Your task to perform on an android device: Open settings on Google Maps Image 0: 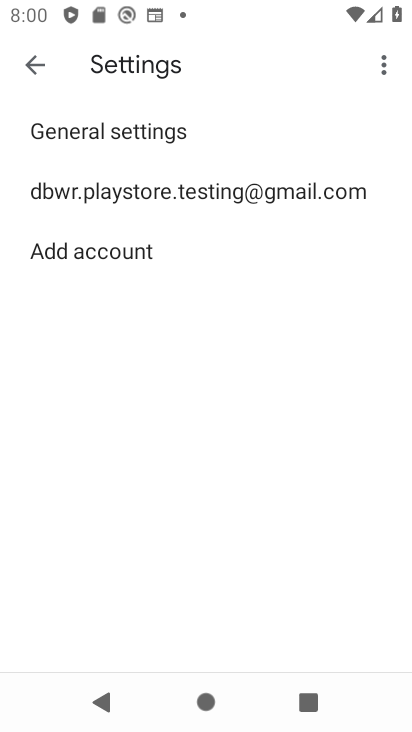
Step 0: press home button
Your task to perform on an android device: Open settings on Google Maps Image 1: 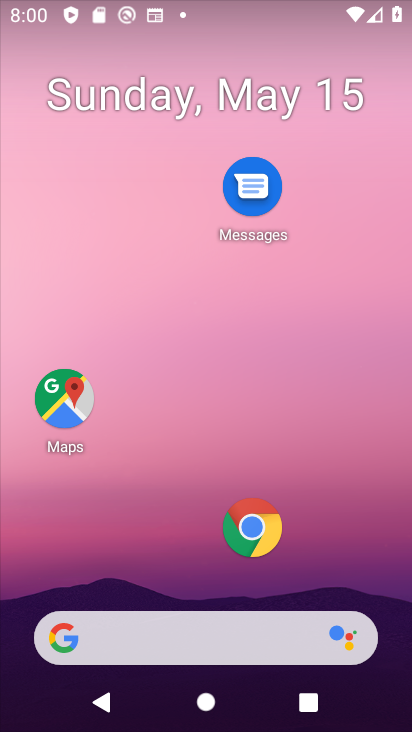
Step 1: click (74, 412)
Your task to perform on an android device: Open settings on Google Maps Image 2: 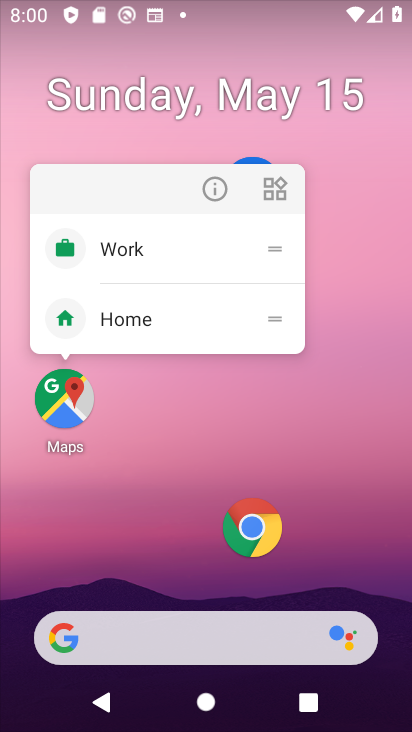
Step 2: click (66, 409)
Your task to perform on an android device: Open settings on Google Maps Image 3: 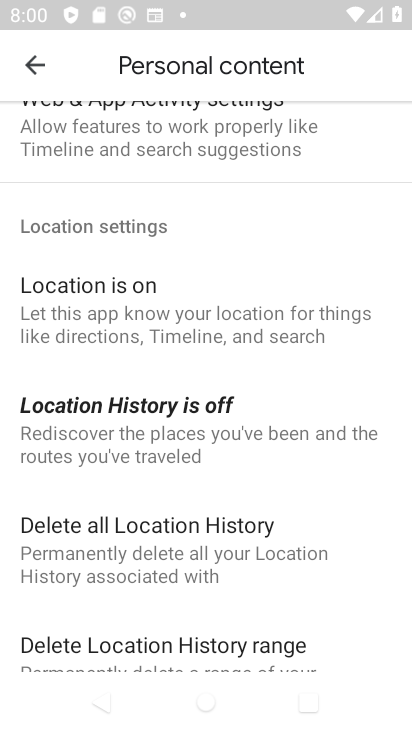
Step 3: click (27, 66)
Your task to perform on an android device: Open settings on Google Maps Image 4: 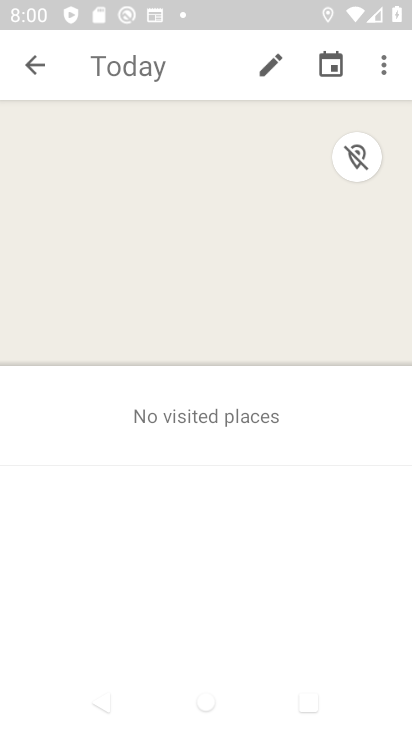
Step 4: click (29, 64)
Your task to perform on an android device: Open settings on Google Maps Image 5: 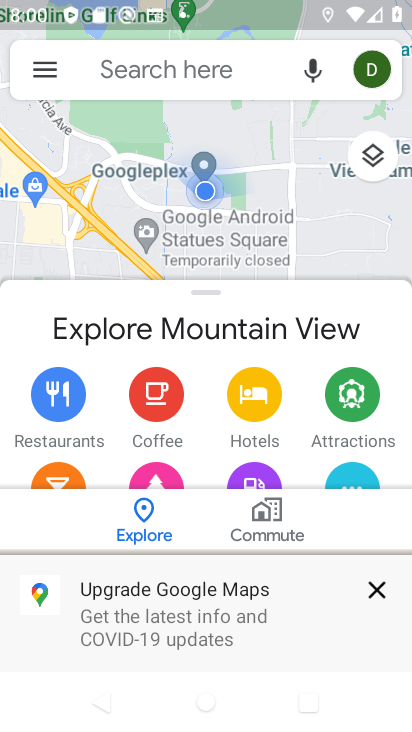
Step 5: click (43, 66)
Your task to perform on an android device: Open settings on Google Maps Image 6: 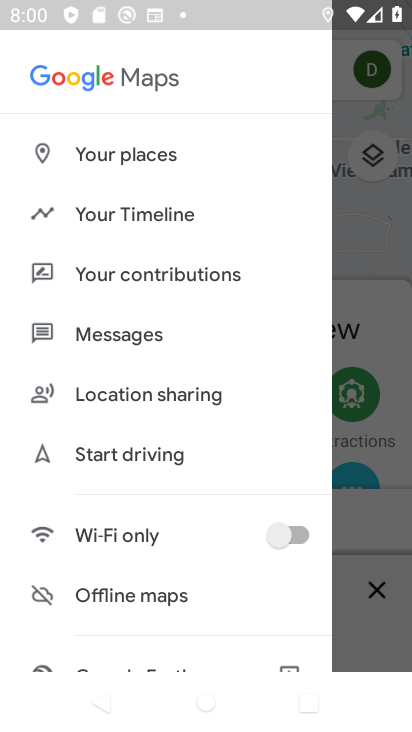
Step 6: drag from (126, 581) to (237, 303)
Your task to perform on an android device: Open settings on Google Maps Image 7: 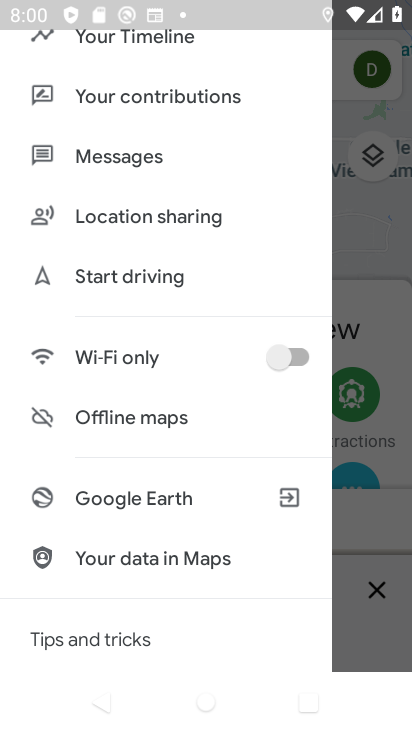
Step 7: drag from (109, 601) to (233, 179)
Your task to perform on an android device: Open settings on Google Maps Image 8: 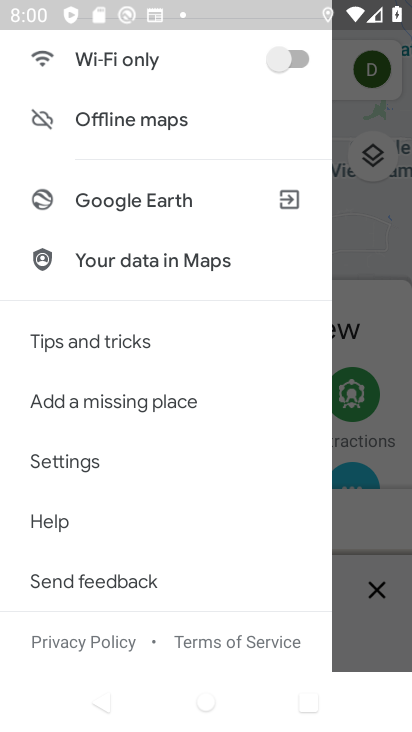
Step 8: click (71, 467)
Your task to perform on an android device: Open settings on Google Maps Image 9: 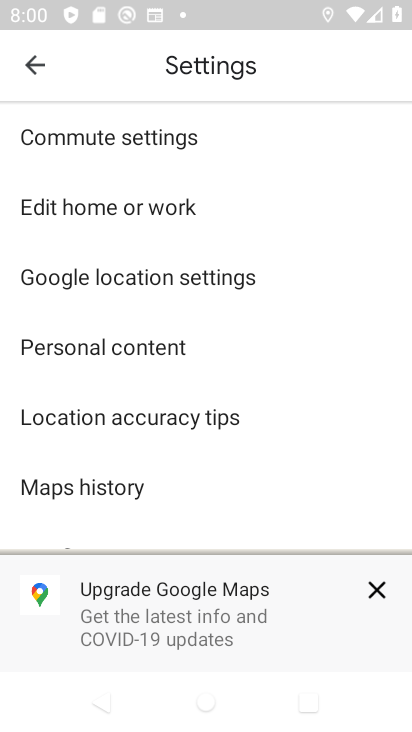
Step 9: task complete